Your task to perform on an android device: Find coffee shops on Maps Image 0: 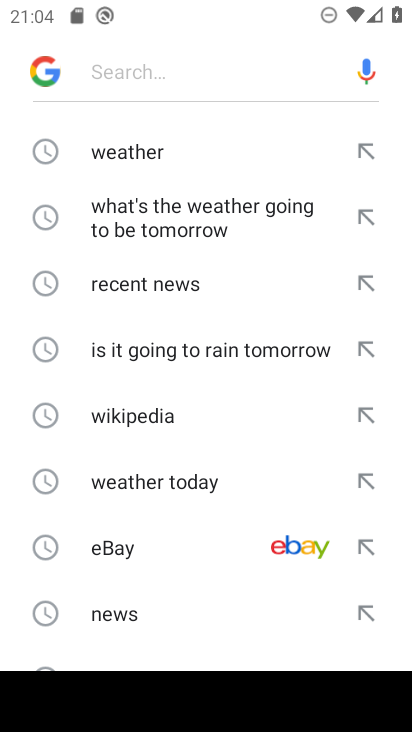
Step 0: press home button
Your task to perform on an android device: Find coffee shops on Maps Image 1: 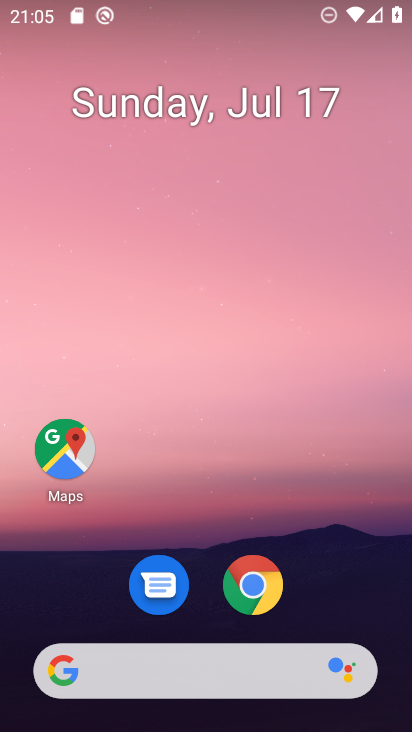
Step 1: click (63, 453)
Your task to perform on an android device: Find coffee shops on Maps Image 2: 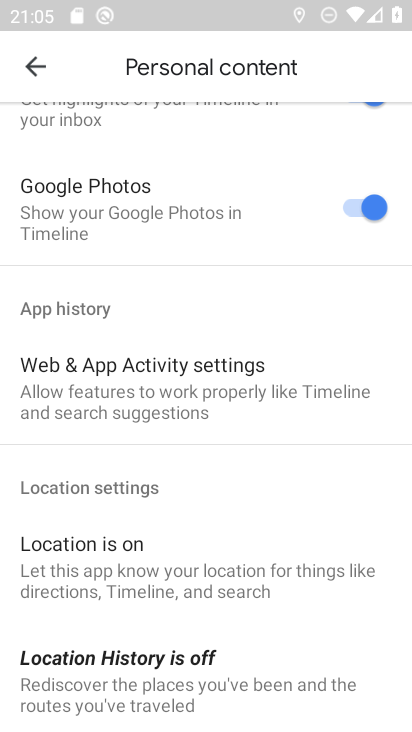
Step 2: click (33, 63)
Your task to perform on an android device: Find coffee shops on Maps Image 3: 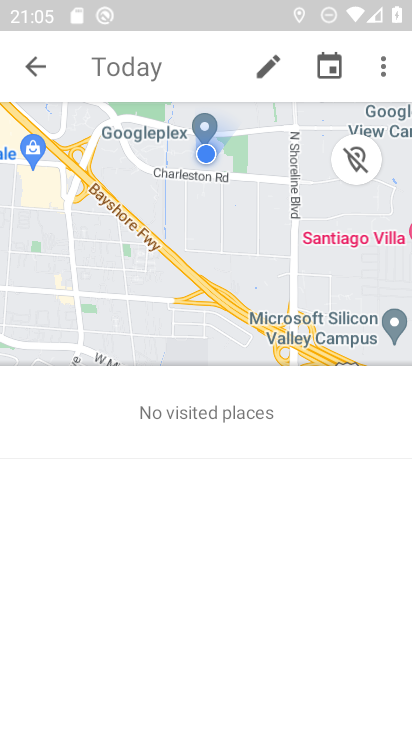
Step 3: click (32, 60)
Your task to perform on an android device: Find coffee shops on Maps Image 4: 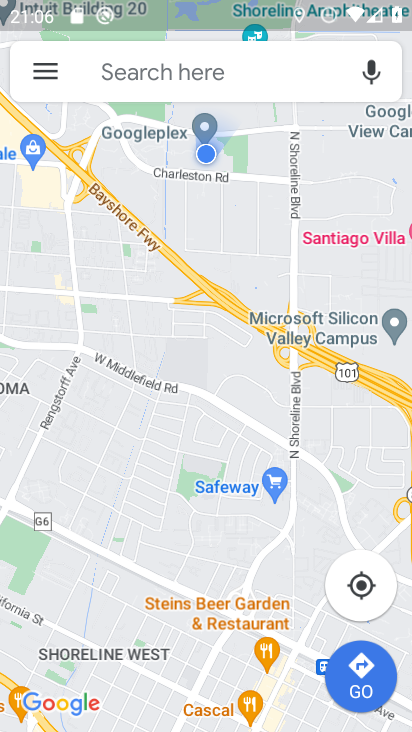
Step 4: click (125, 59)
Your task to perform on an android device: Find coffee shops on Maps Image 5: 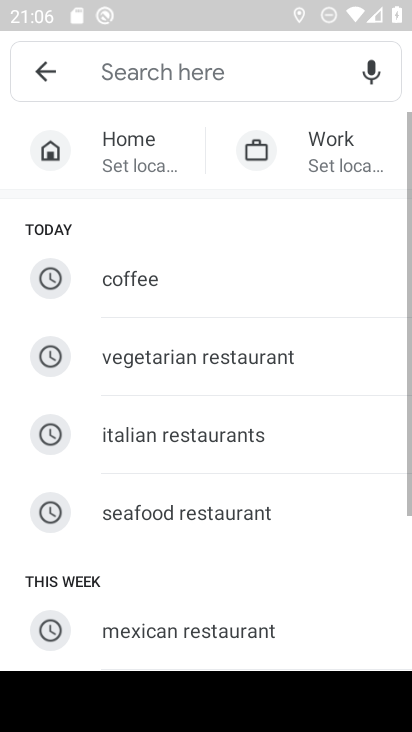
Step 5: click (124, 280)
Your task to perform on an android device: Find coffee shops on Maps Image 6: 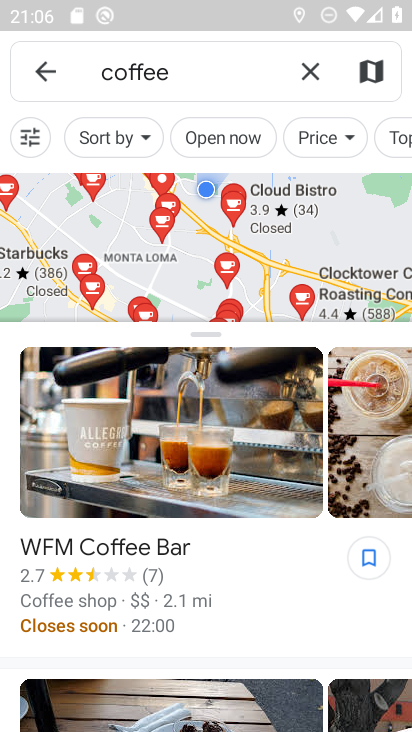
Step 6: task complete